Your task to perform on an android device: Open the stopwatch Image 0: 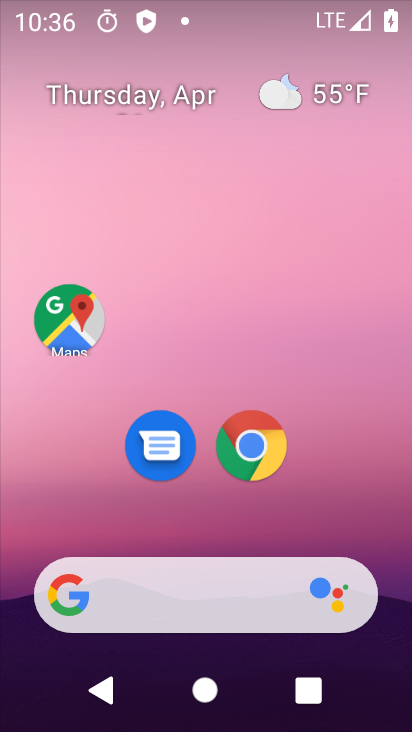
Step 0: drag from (374, 547) to (166, 1)
Your task to perform on an android device: Open the stopwatch Image 1: 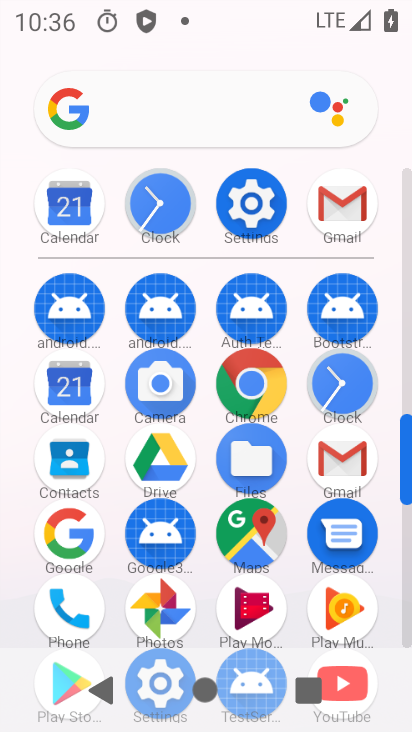
Step 1: click (158, 199)
Your task to perform on an android device: Open the stopwatch Image 2: 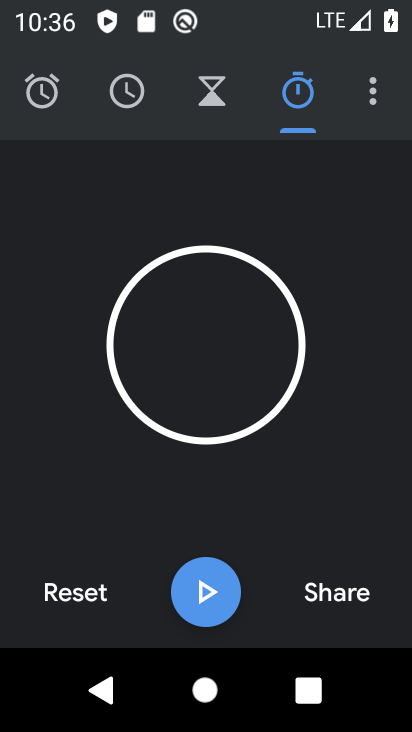
Step 2: task complete